Your task to perform on an android device: Open sound settings Image 0: 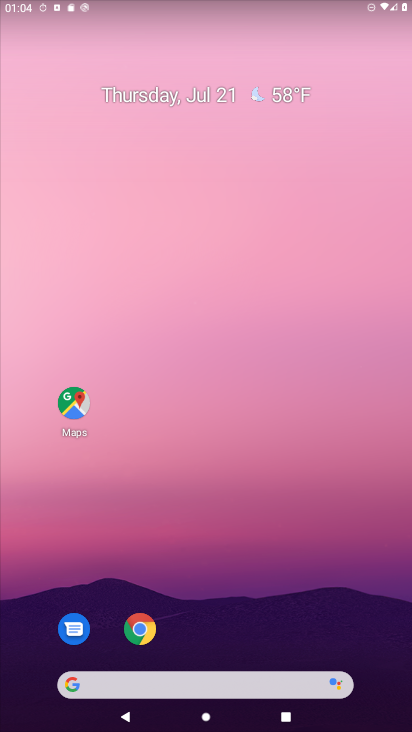
Step 0: drag from (204, 602) to (177, 99)
Your task to perform on an android device: Open sound settings Image 1: 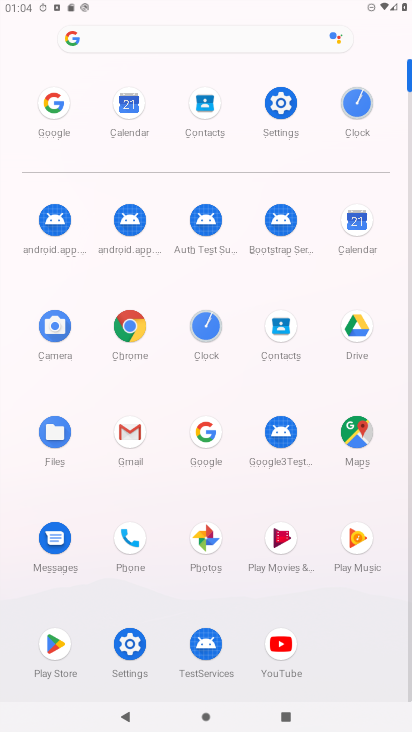
Step 1: click (263, 109)
Your task to perform on an android device: Open sound settings Image 2: 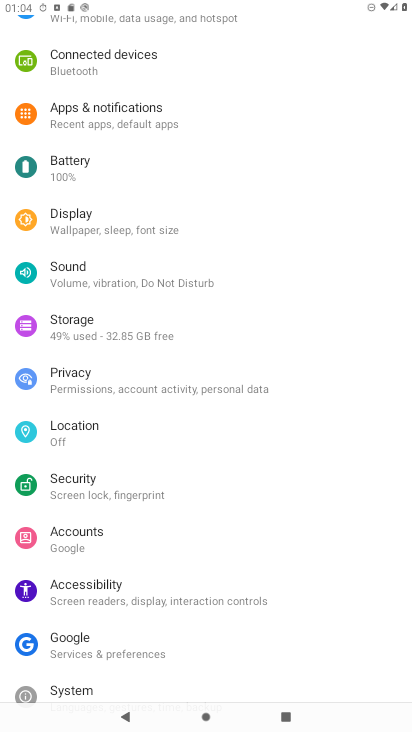
Step 2: click (135, 275)
Your task to perform on an android device: Open sound settings Image 3: 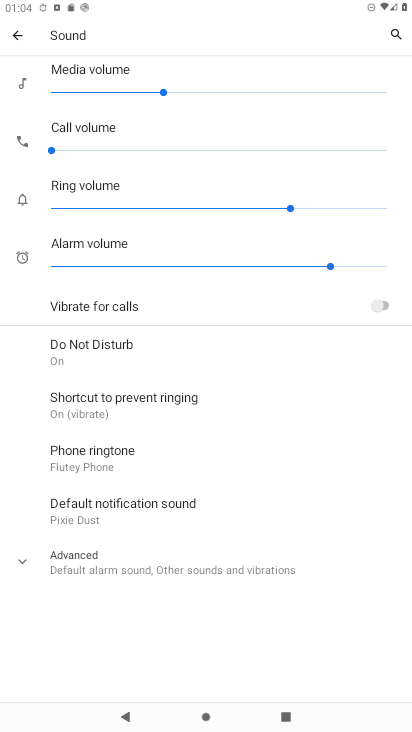
Step 3: task complete